Your task to perform on an android device: Open calendar and show me the first week of next month Image 0: 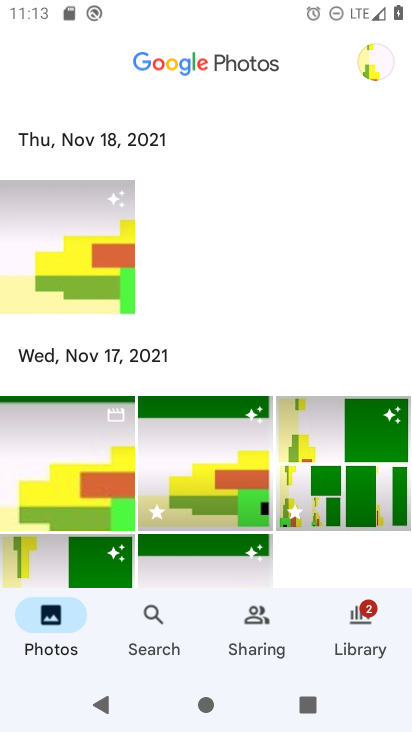
Step 0: press home button
Your task to perform on an android device: Open calendar and show me the first week of next month Image 1: 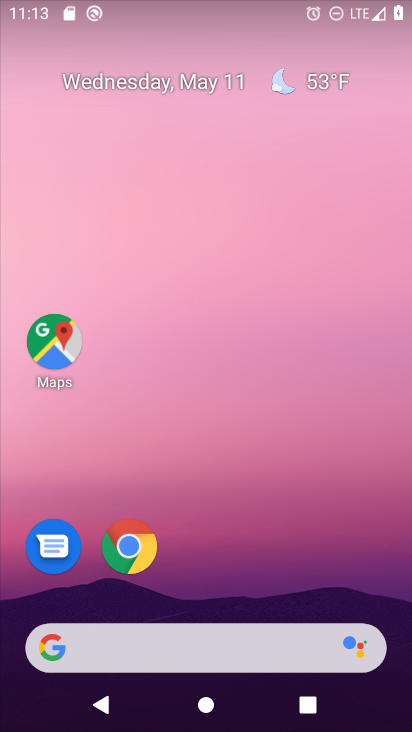
Step 1: drag from (383, 613) to (233, 19)
Your task to perform on an android device: Open calendar and show me the first week of next month Image 2: 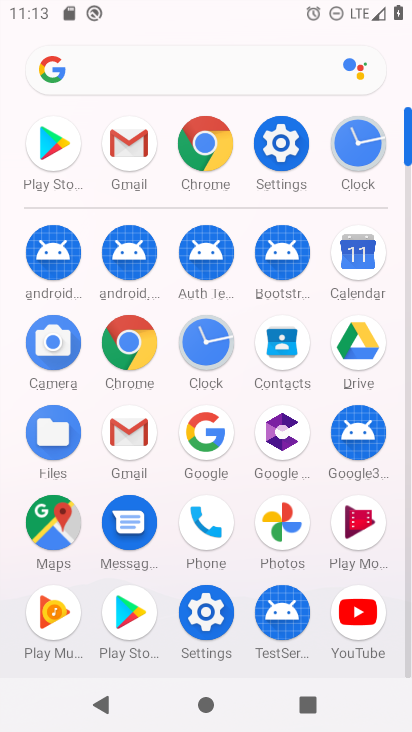
Step 2: click (343, 270)
Your task to perform on an android device: Open calendar and show me the first week of next month Image 3: 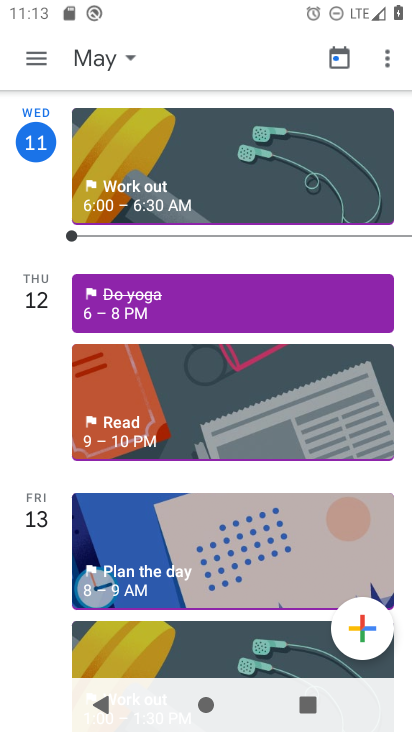
Step 3: click (108, 60)
Your task to perform on an android device: Open calendar and show me the first week of next month Image 4: 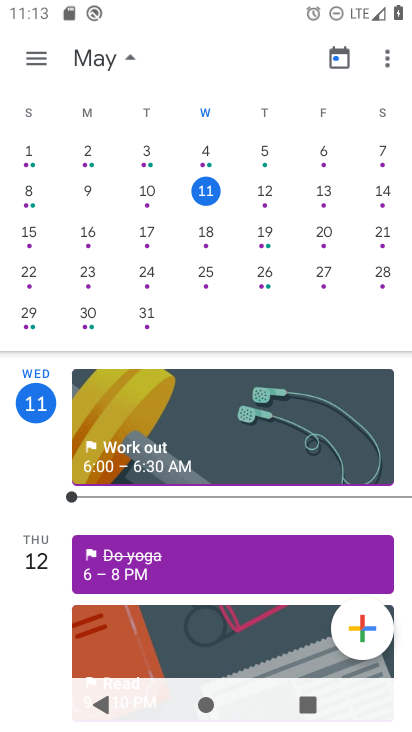
Step 4: drag from (297, 228) to (0, 153)
Your task to perform on an android device: Open calendar and show me the first week of next month Image 5: 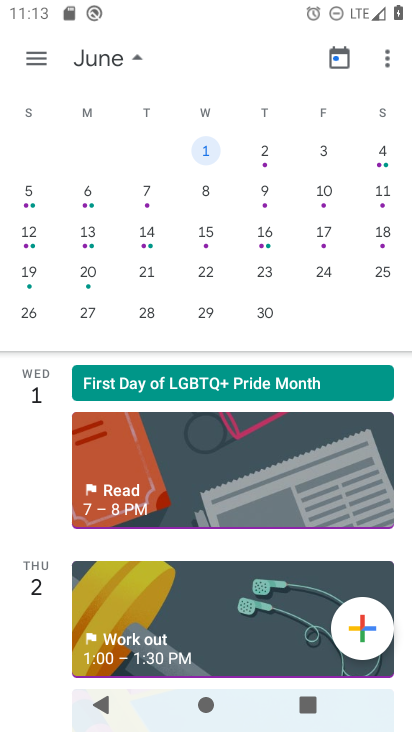
Step 5: click (29, 189)
Your task to perform on an android device: Open calendar and show me the first week of next month Image 6: 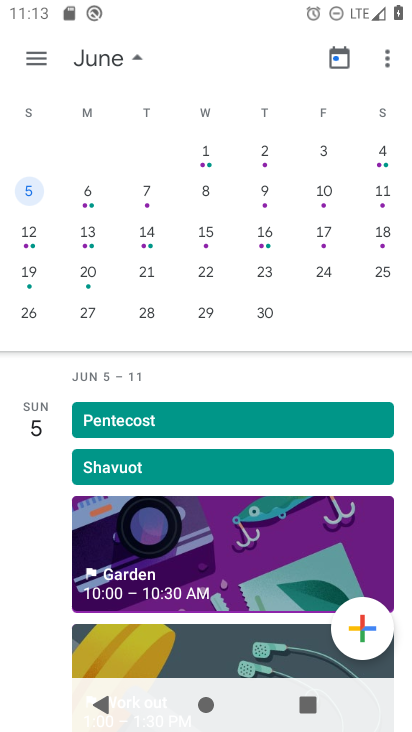
Step 6: task complete